Your task to perform on an android device: uninstall "Lyft - Rideshare, Bikes, Scooters & Transit" Image 0: 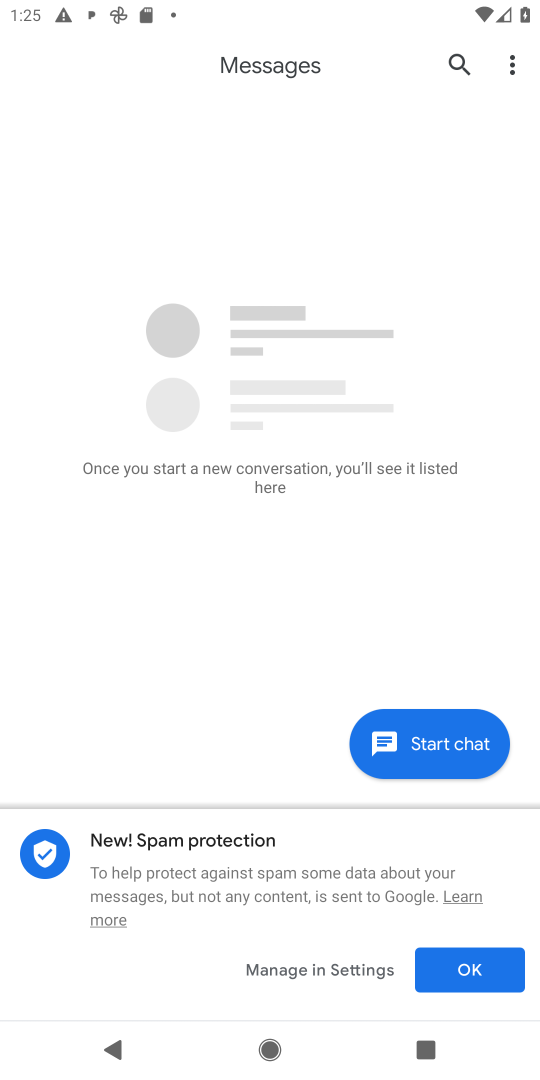
Step 0: press home button
Your task to perform on an android device: uninstall "Lyft - Rideshare, Bikes, Scooters & Transit" Image 1: 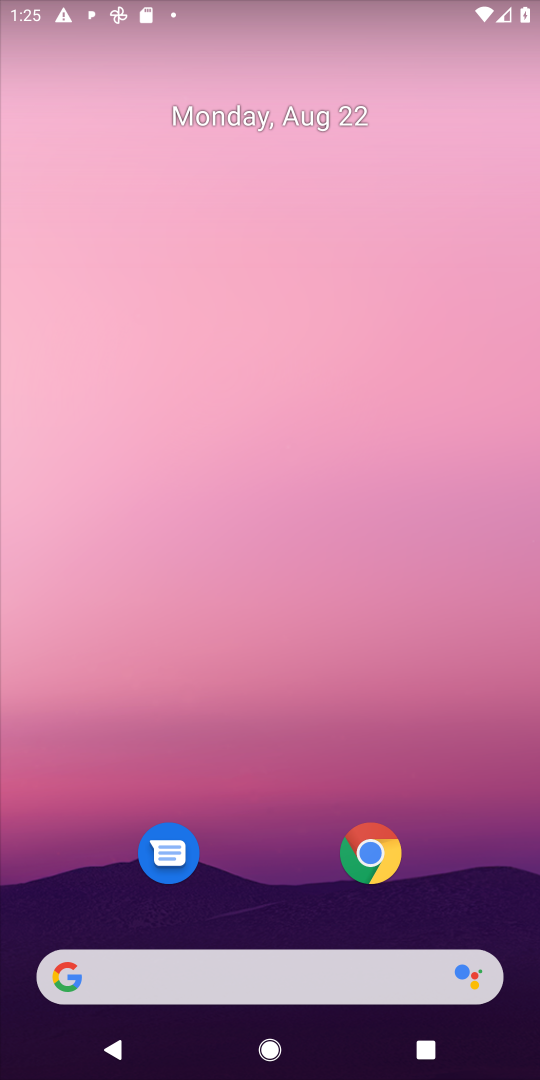
Step 1: drag from (238, 883) to (300, 454)
Your task to perform on an android device: uninstall "Lyft - Rideshare, Bikes, Scooters & Transit" Image 2: 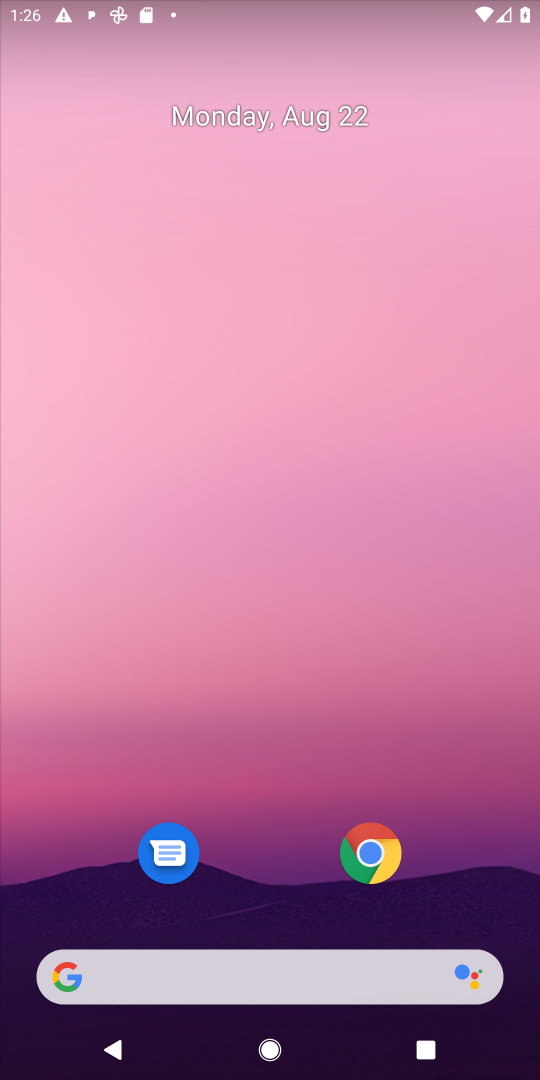
Step 2: drag from (294, 945) to (313, 401)
Your task to perform on an android device: uninstall "Lyft - Rideshare, Bikes, Scooters & Transit" Image 3: 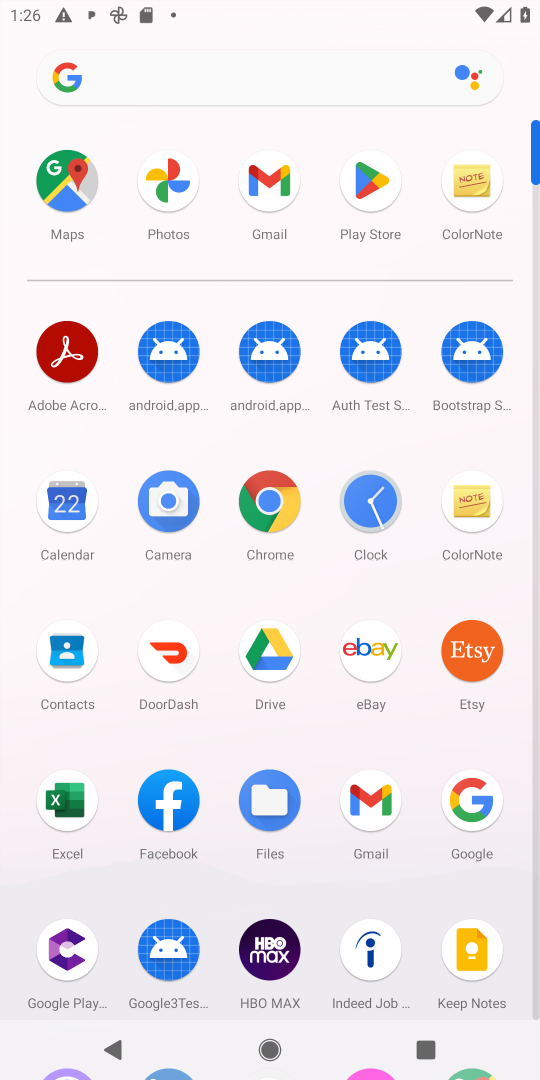
Step 3: click (367, 194)
Your task to perform on an android device: uninstall "Lyft - Rideshare, Bikes, Scooters & Transit" Image 4: 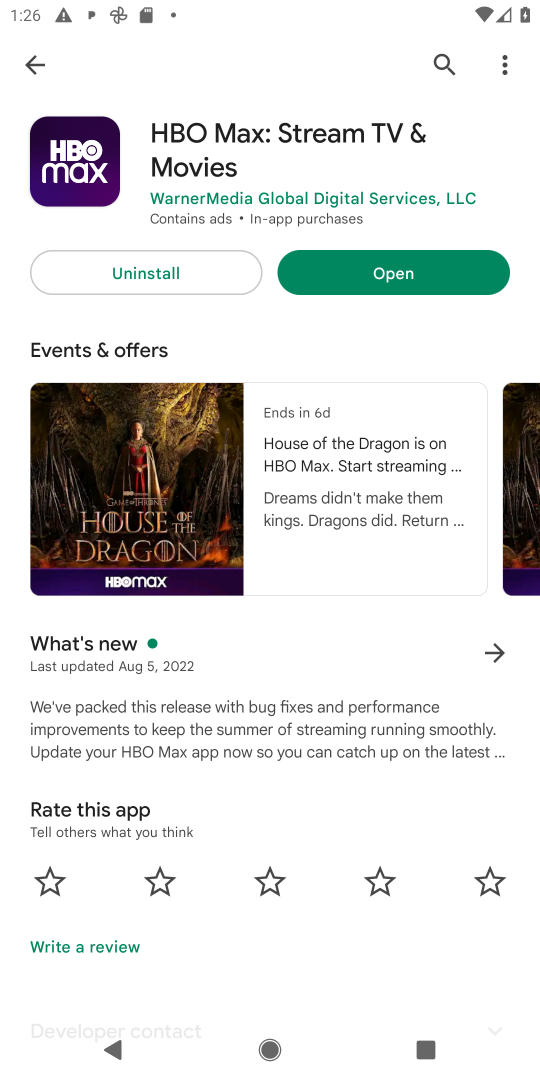
Step 4: click (25, 81)
Your task to perform on an android device: uninstall "Lyft - Rideshare, Bikes, Scooters & Transit" Image 5: 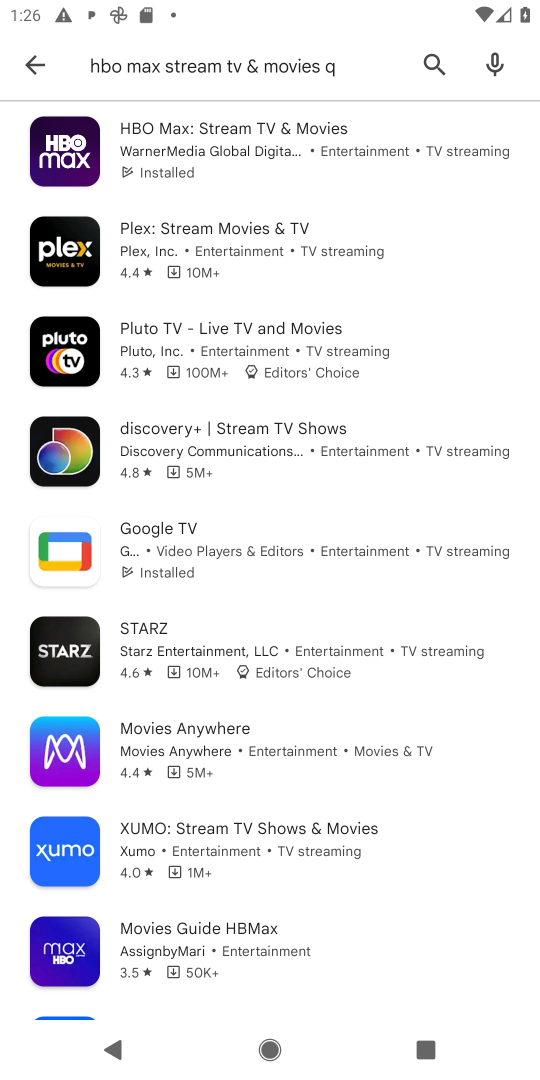
Step 5: click (48, 51)
Your task to perform on an android device: uninstall "Lyft - Rideshare, Bikes, Scooters & Transit" Image 6: 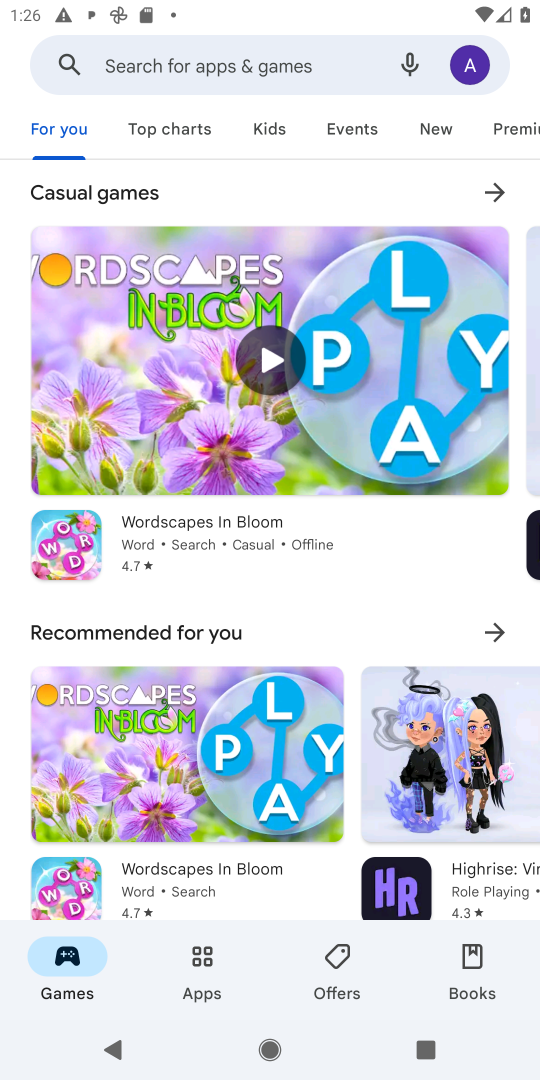
Step 6: click (154, 52)
Your task to perform on an android device: uninstall "Lyft - Rideshare, Bikes, Scooters & Transit" Image 7: 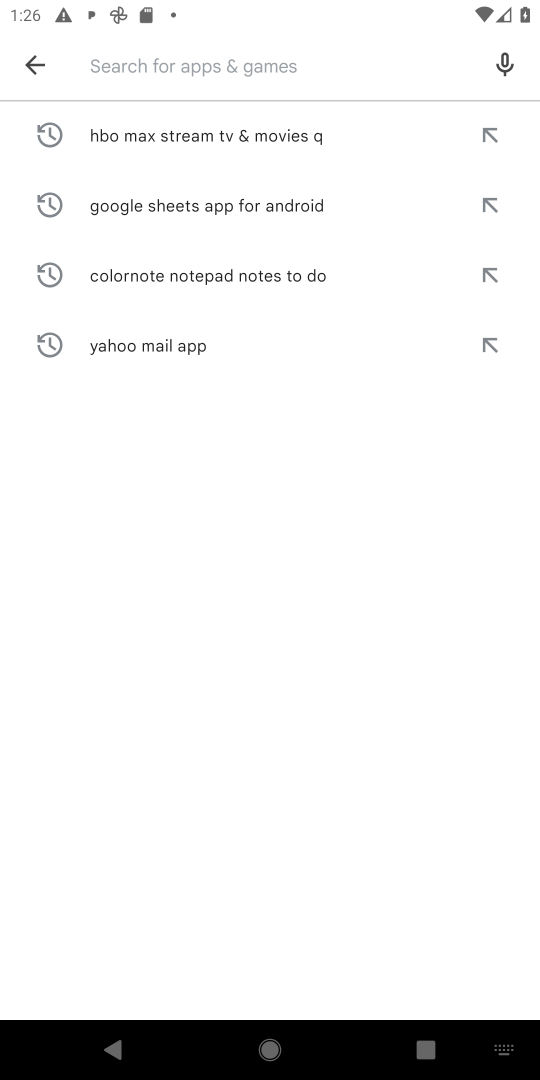
Step 7: type "Lyft - Rideshare, Bikes, Scooters & Transit "
Your task to perform on an android device: uninstall "Lyft - Rideshare, Bikes, Scooters & Transit" Image 8: 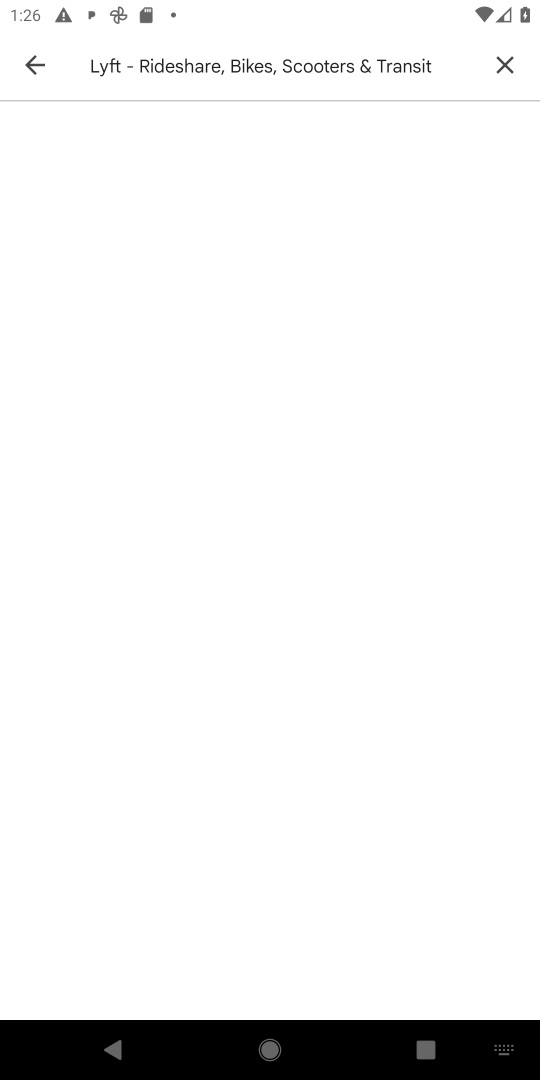
Step 8: click (492, 72)
Your task to perform on an android device: uninstall "Lyft - Rideshare, Bikes, Scooters & Transit" Image 9: 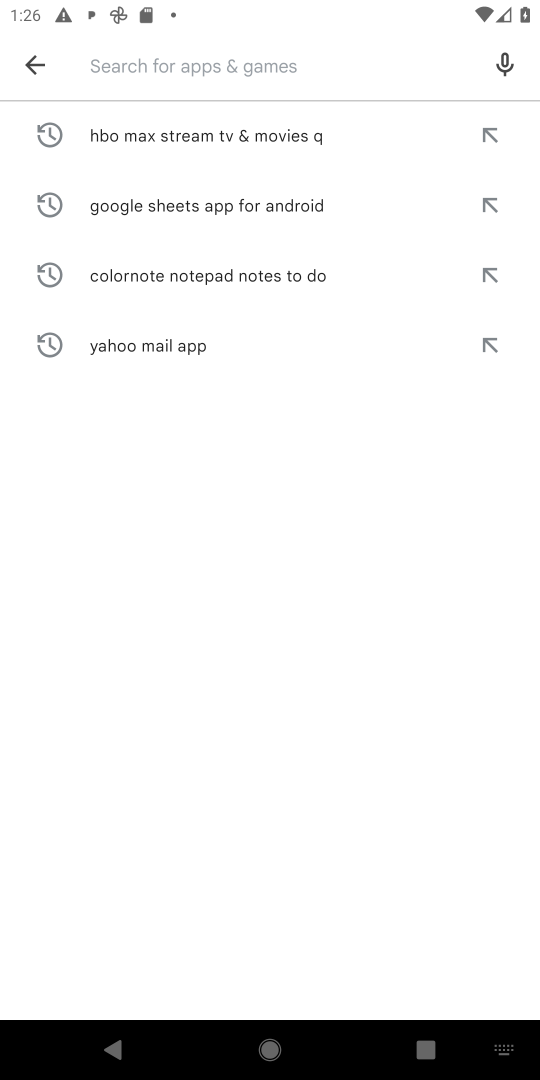
Step 9: click (273, 61)
Your task to perform on an android device: uninstall "Lyft - Rideshare, Bikes, Scooters & Transit" Image 10: 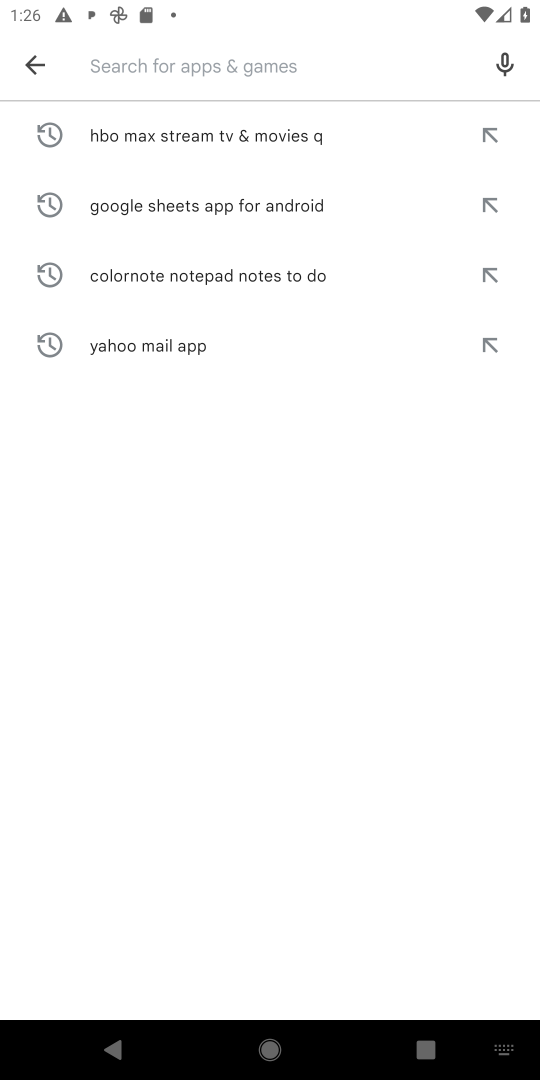
Step 10: type "Lyft "
Your task to perform on an android device: uninstall "Lyft - Rideshare, Bikes, Scooters & Transit" Image 11: 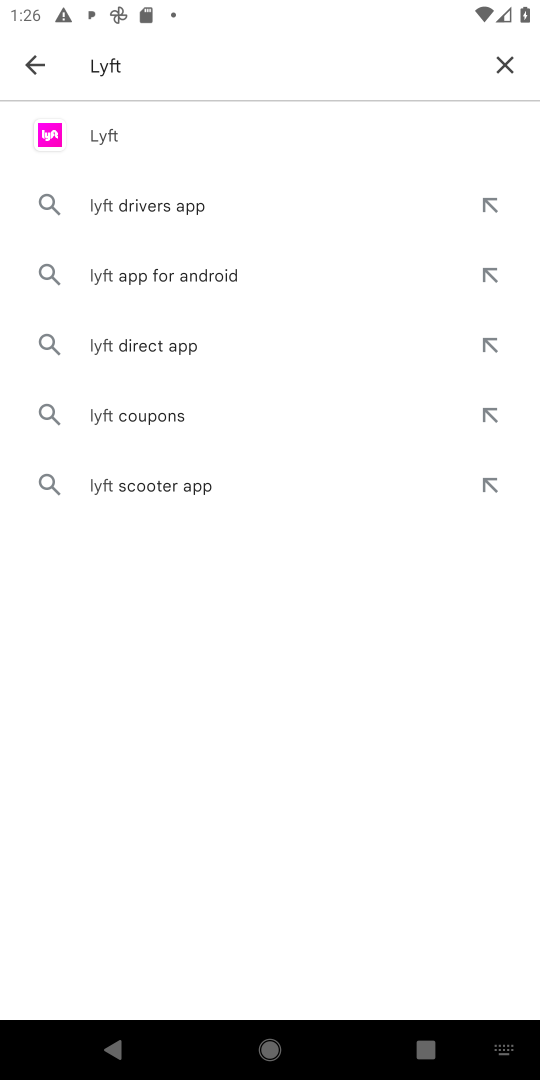
Step 11: click (98, 129)
Your task to perform on an android device: uninstall "Lyft - Rideshare, Bikes, Scooters & Transit" Image 12: 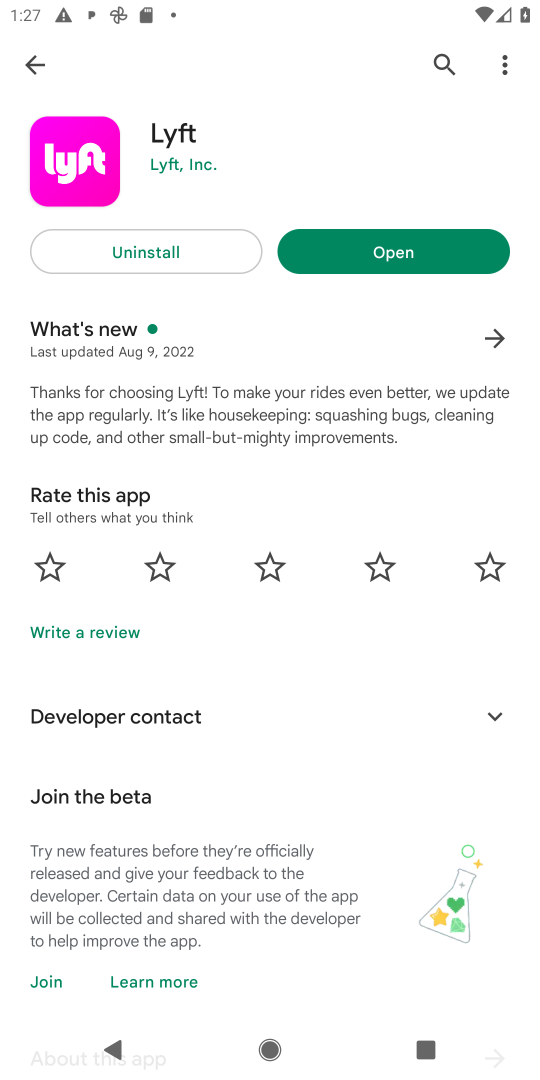
Step 12: drag from (385, 251) to (11, 222)
Your task to perform on an android device: uninstall "Lyft - Rideshare, Bikes, Scooters & Transit" Image 13: 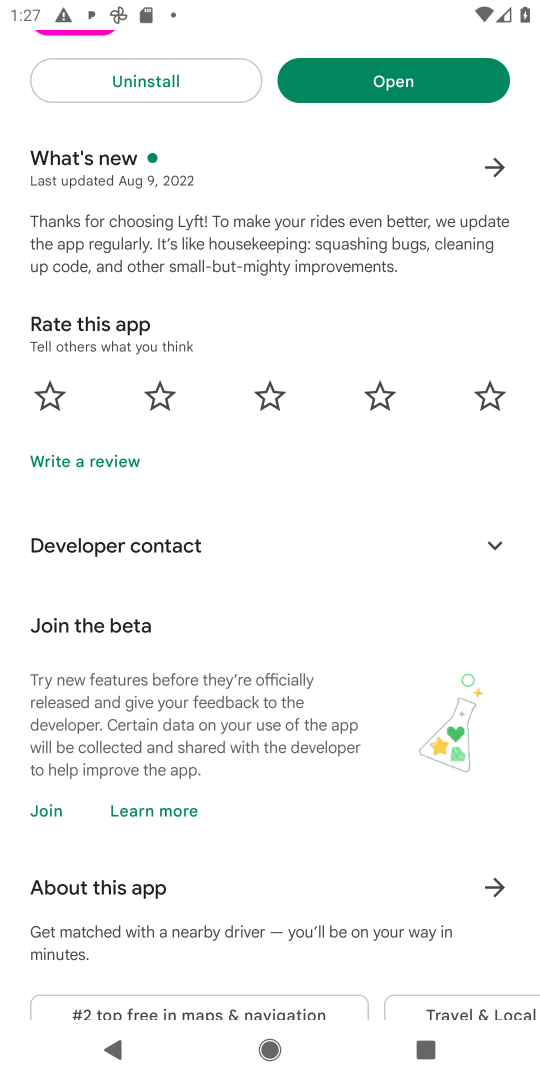
Step 13: click (124, 240)
Your task to perform on an android device: uninstall "Lyft - Rideshare, Bikes, Scooters & Transit" Image 14: 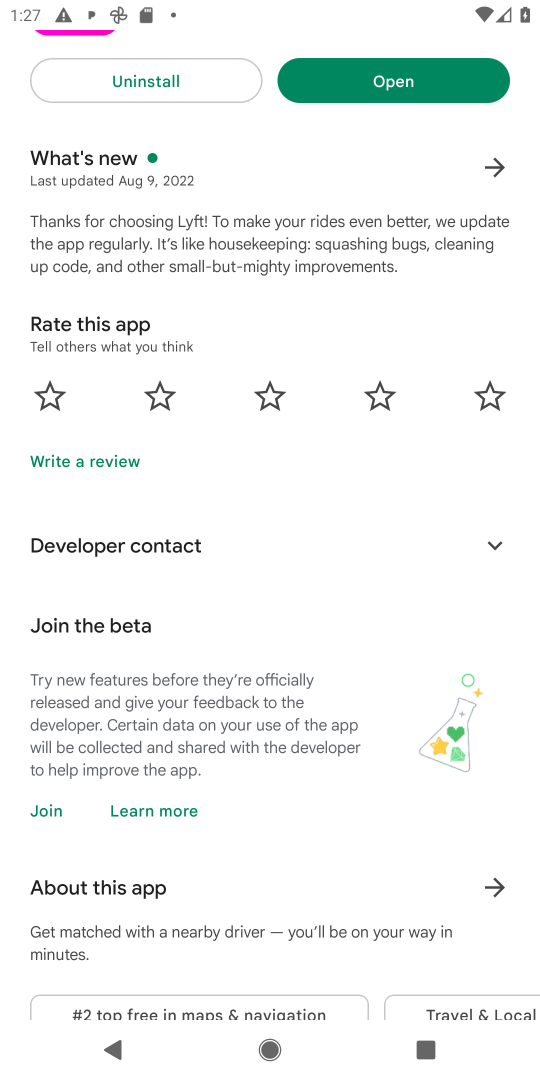
Step 14: click (141, 64)
Your task to perform on an android device: uninstall "Lyft - Rideshare, Bikes, Scooters & Transit" Image 15: 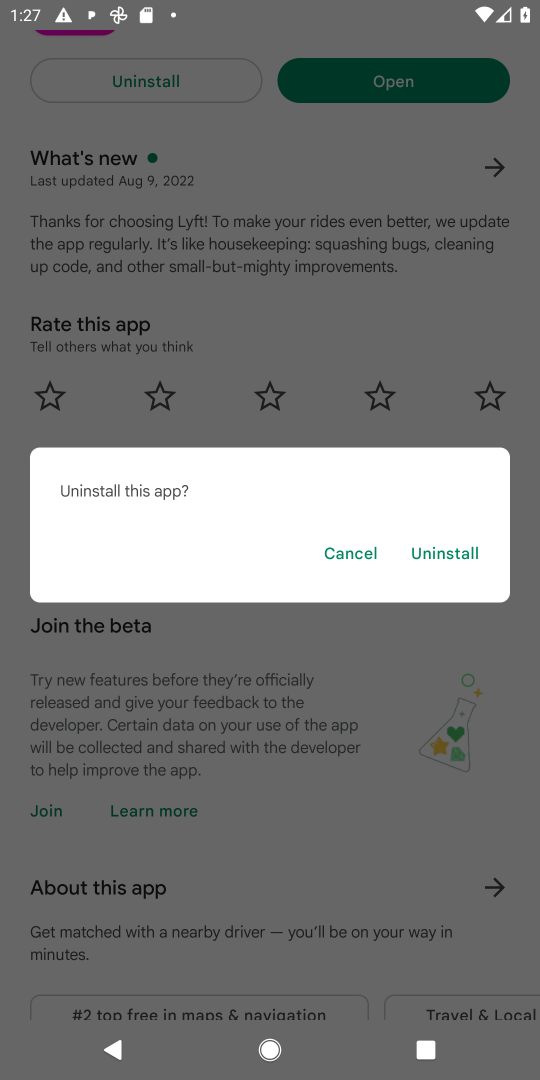
Step 15: click (418, 528)
Your task to perform on an android device: uninstall "Lyft - Rideshare, Bikes, Scooters & Transit" Image 16: 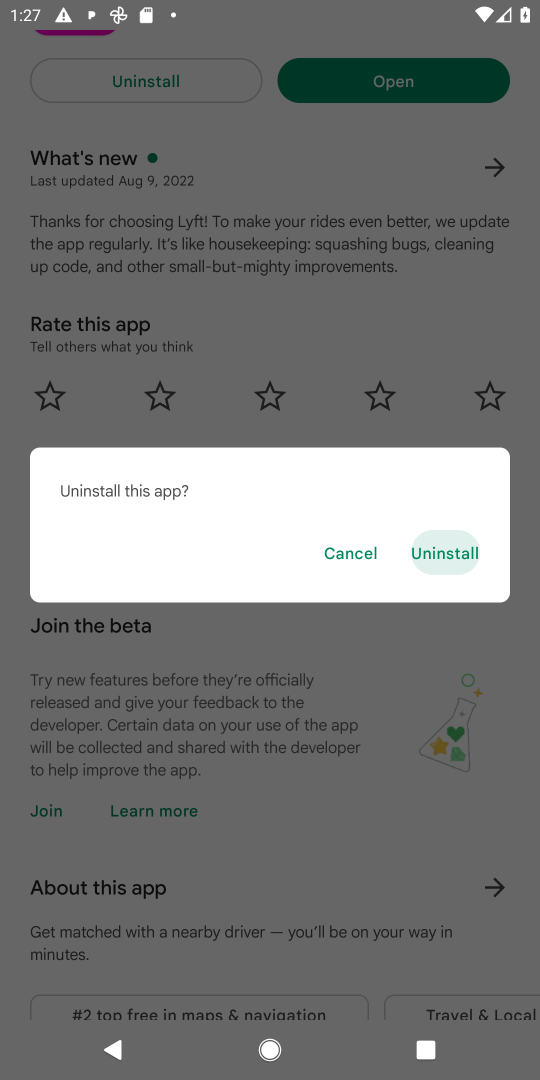
Step 16: click (418, 528)
Your task to perform on an android device: uninstall "Lyft - Rideshare, Bikes, Scooters & Transit" Image 17: 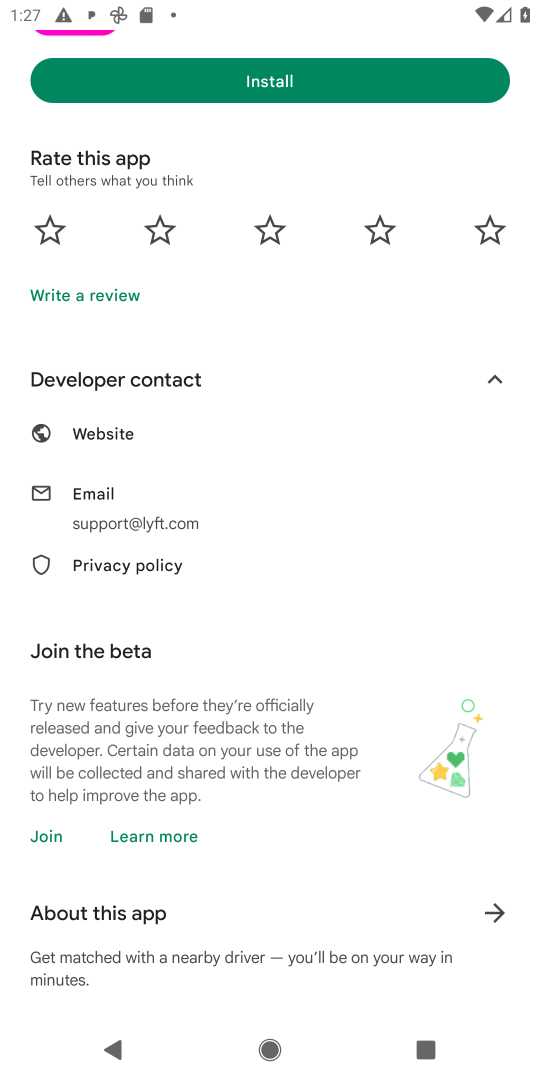
Step 17: task complete